Your task to perform on an android device: Open Reddit.com Image 0: 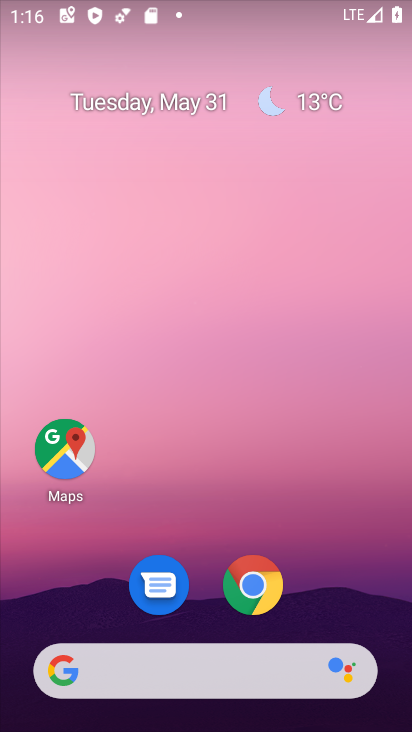
Step 0: drag from (210, 515) to (210, 163)
Your task to perform on an android device: Open Reddit.com Image 1: 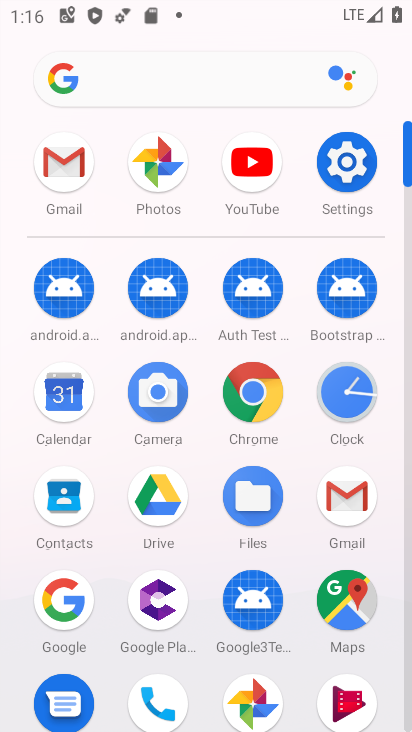
Step 1: press home button
Your task to perform on an android device: Open Reddit.com Image 2: 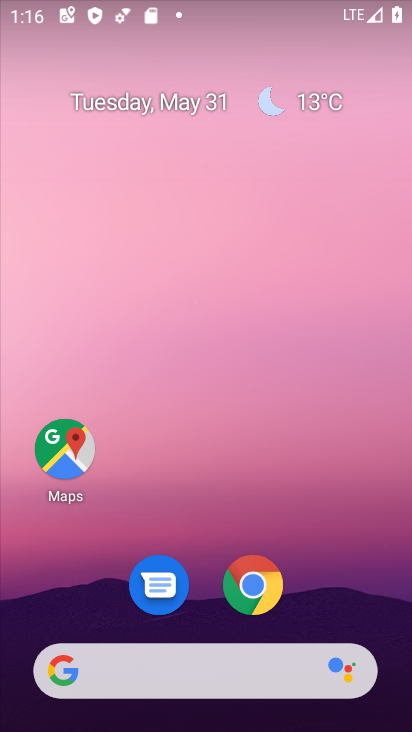
Step 2: click (212, 675)
Your task to perform on an android device: Open Reddit.com Image 3: 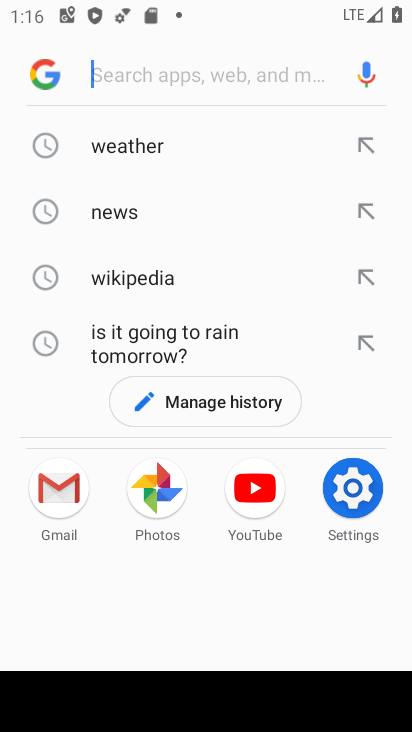
Step 3: type "reddit.com"
Your task to perform on an android device: Open Reddit.com Image 4: 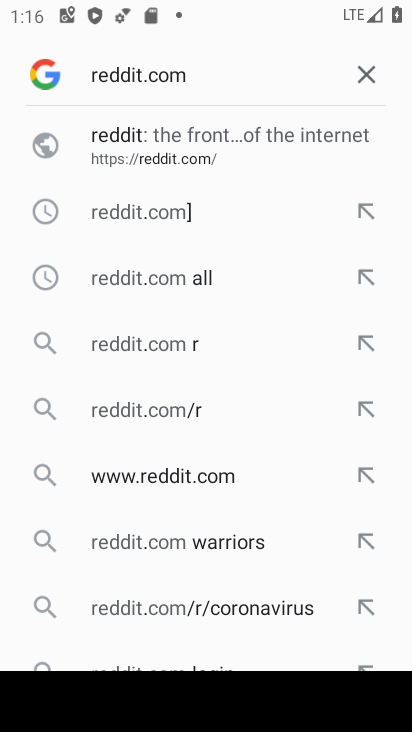
Step 4: click (155, 141)
Your task to perform on an android device: Open Reddit.com Image 5: 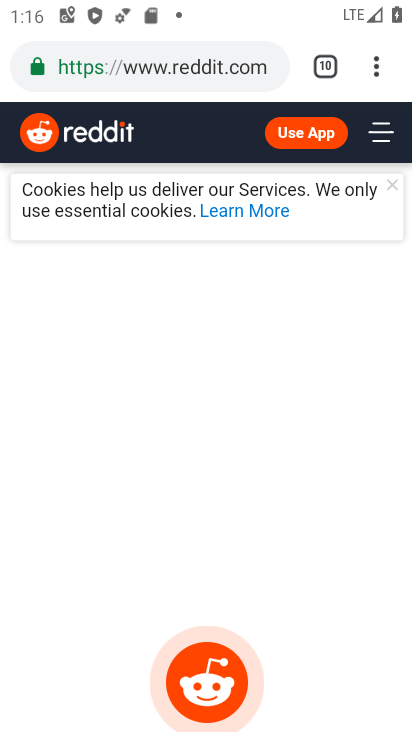
Step 5: task complete